Your task to perform on an android device: Open network settings Image 0: 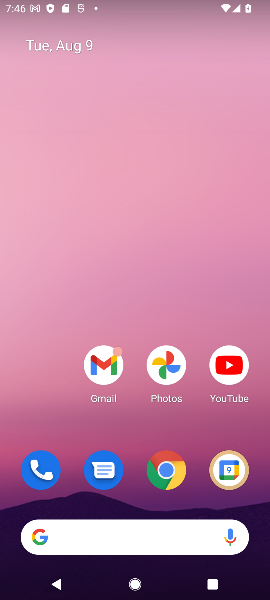
Step 0: drag from (137, 496) to (231, 70)
Your task to perform on an android device: Open network settings Image 1: 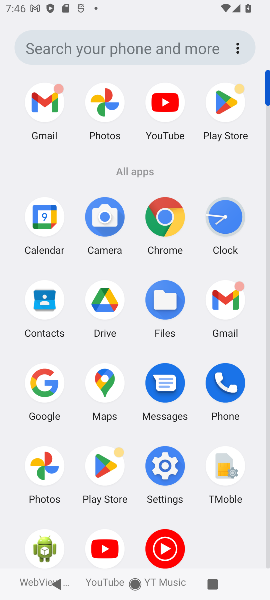
Step 1: click (160, 474)
Your task to perform on an android device: Open network settings Image 2: 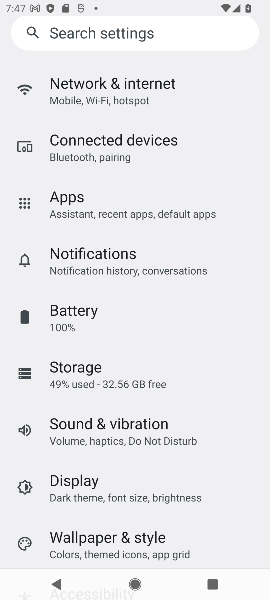
Step 2: click (113, 96)
Your task to perform on an android device: Open network settings Image 3: 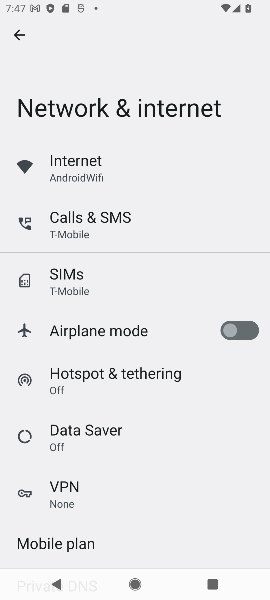
Step 3: task complete